Your task to perform on an android device: Go to display settings Image 0: 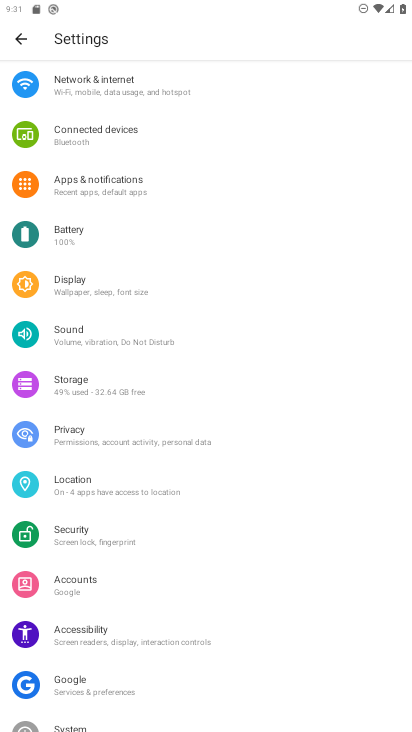
Step 0: click (150, 276)
Your task to perform on an android device: Go to display settings Image 1: 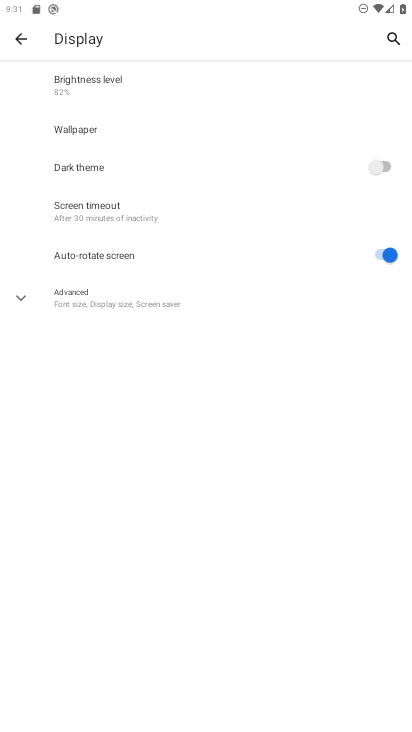
Step 1: task complete